Your task to perform on an android device: allow notifications from all sites in the chrome app Image 0: 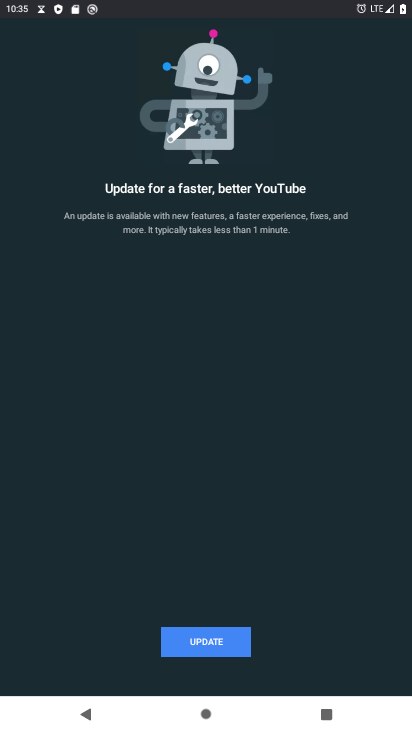
Step 0: press home button
Your task to perform on an android device: allow notifications from all sites in the chrome app Image 1: 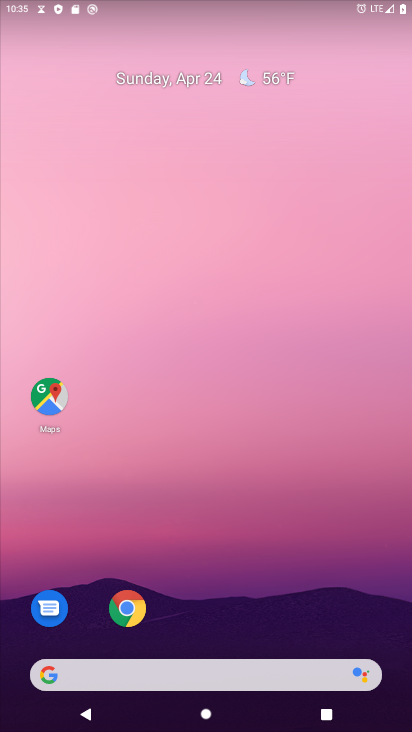
Step 1: drag from (202, 638) to (259, 3)
Your task to perform on an android device: allow notifications from all sites in the chrome app Image 2: 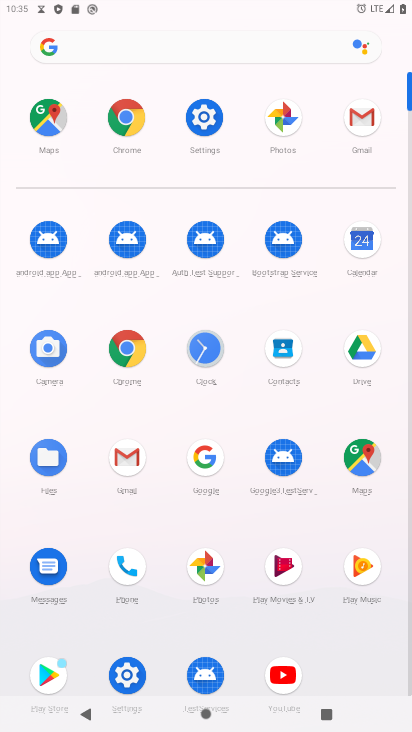
Step 2: click (136, 353)
Your task to perform on an android device: allow notifications from all sites in the chrome app Image 3: 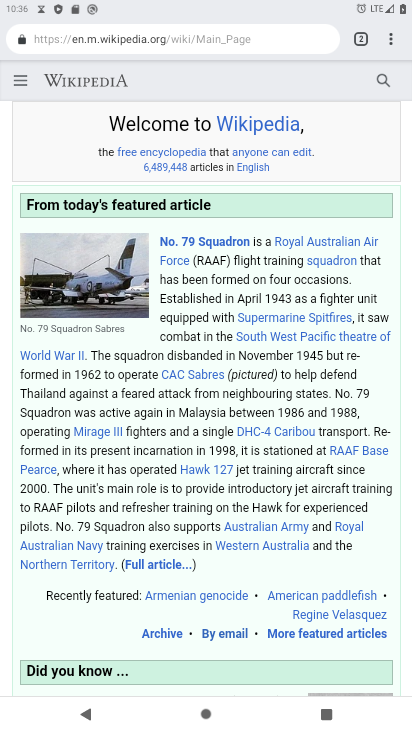
Step 3: drag from (387, 40) to (254, 511)
Your task to perform on an android device: allow notifications from all sites in the chrome app Image 4: 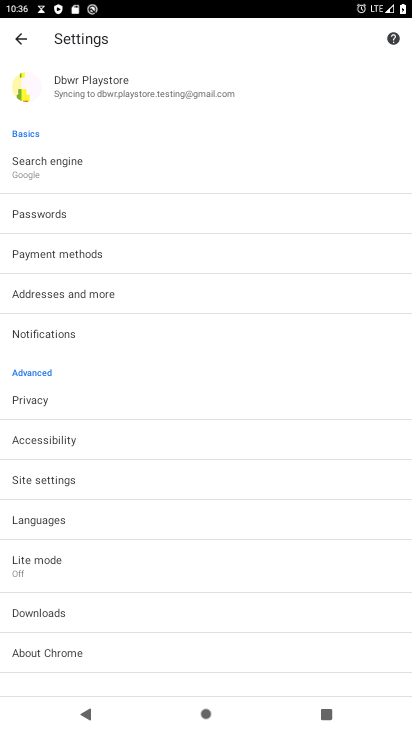
Step 4: click (37, 478)
Your task to perform on an android device: allow notifications from all sites in the chrome app Image 5: 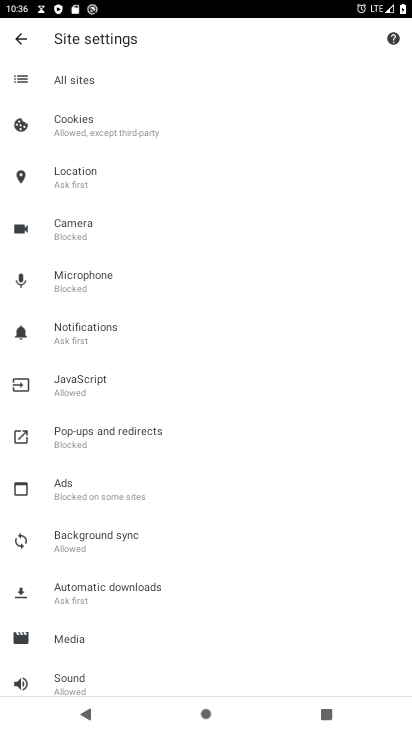
Step 5: click (87, 327)
Your task to perform on an android device: allow notifications from all sites in the chrome app Image 6: 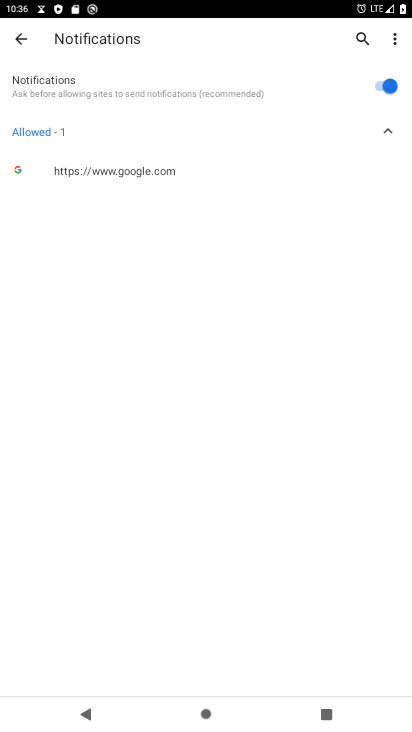
Step 6: task complete